Your task to perform on an android device: turn off notifications settings in the gmail app Image 0: 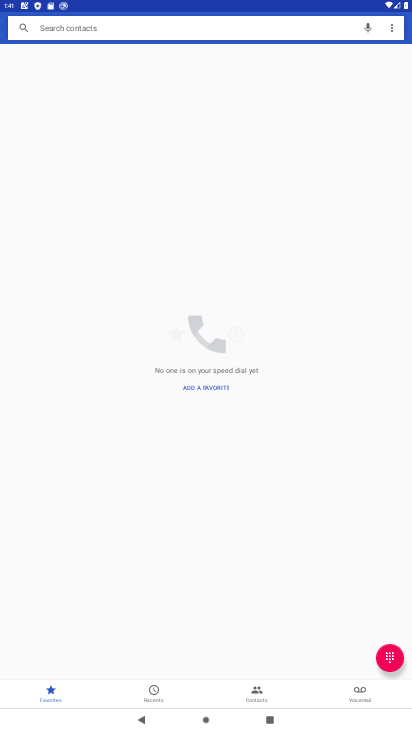
Step 0: press home button
Your task to perform on an android device: turn off notifications settings in the gmail app Image 1: 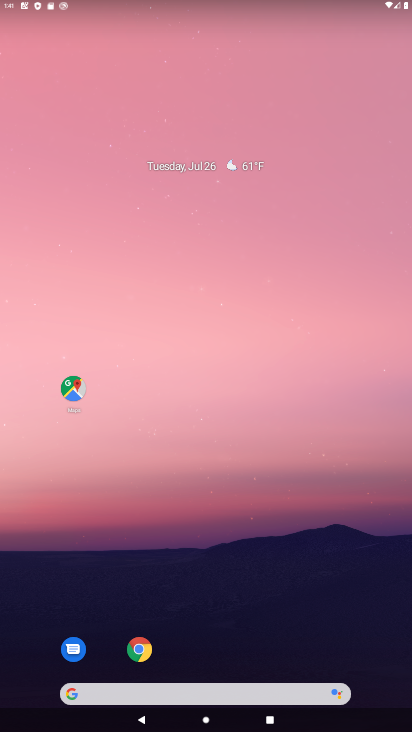
Step 1: drag from (218, 653) to (308, 16)
Your task to perform on an android device: turn off notifications settings in the gmail app Image 2: 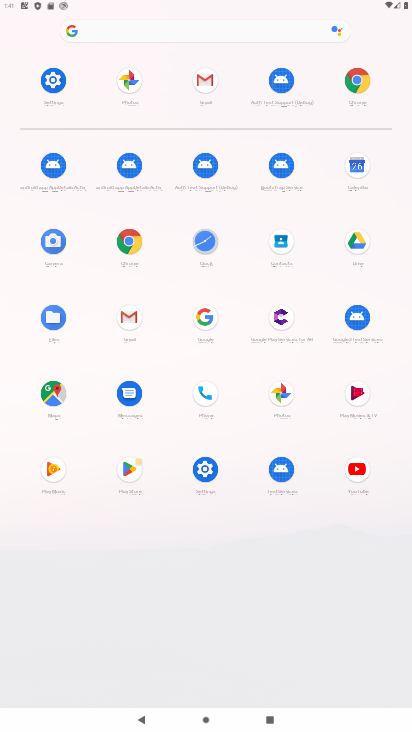
Step 2: click (204, 463)
Your task to perform on an android device: turn off notifications settings in the gmail app Image 3: 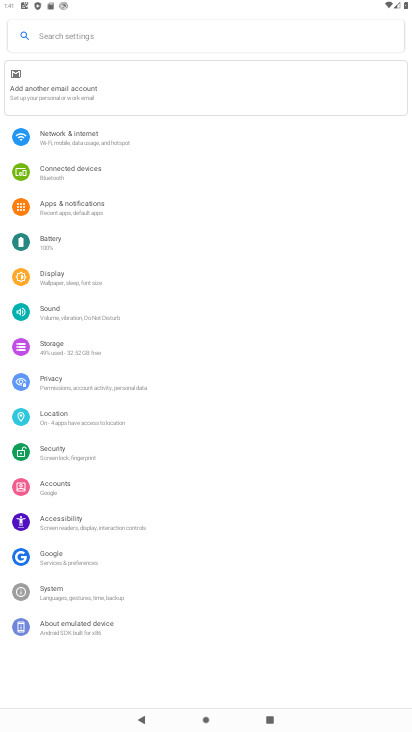
Step 3: click (93, 208)
Your task to perform on an android device: turn off notifications settings in the gmail app Image 4: 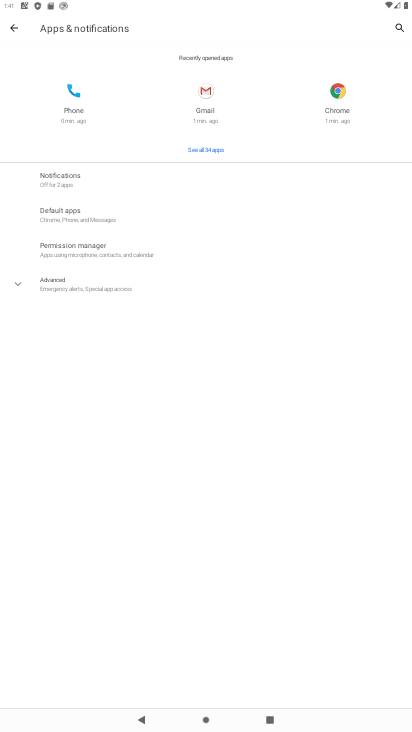
Step 4: click (208, 102)
Your task to perform on an android device: turn off notifications settings in the gmail app Image 5: 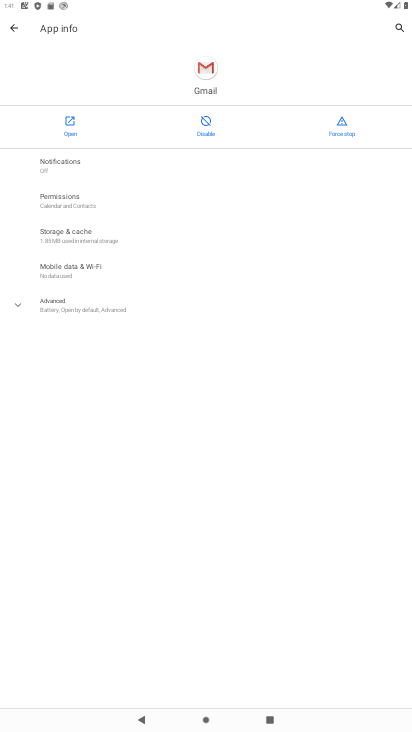
Step 5: click (76, 170)
Your task to perform on an android device: turn off notifications settings in the gmail app Image 6: 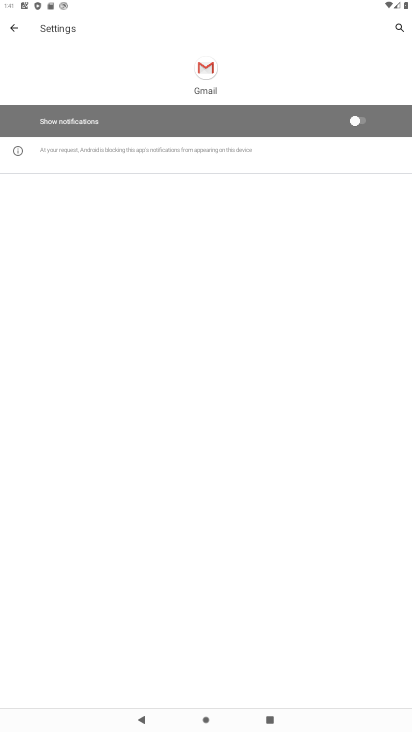
Step 6: task complete